Your task to perform on an android device: Open Maps and search for coffee Image 0: 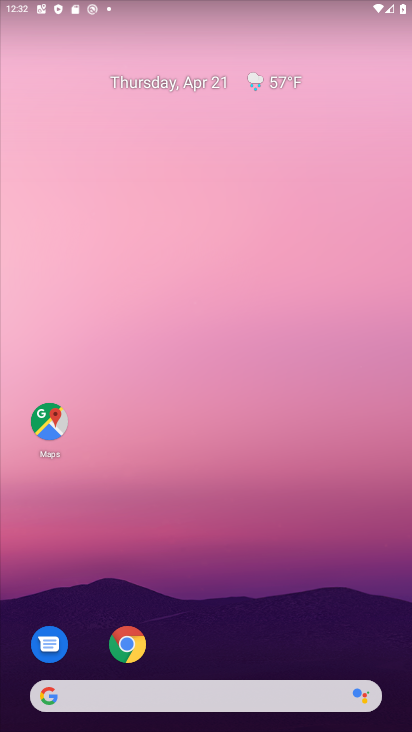
Step 0: drag from (225, 664) to (141, 4)
Your task to perform on an android device: Open Maps and search for coffee Image 1: 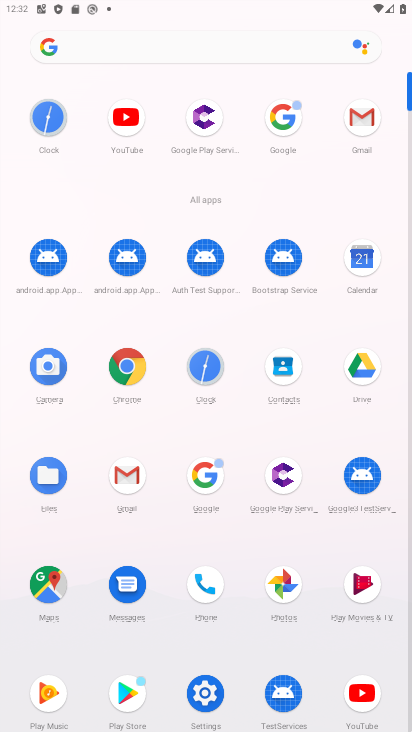
Step 1: click (53, 585)
Your task to perform on an android device: Open Maps and search for coffee Image 2: 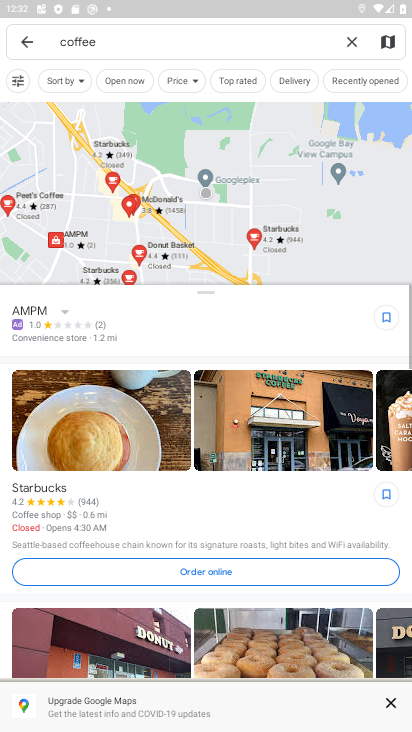
Step 2: task complete